Your task to perform on an android device: Open privacy settings Image 0: 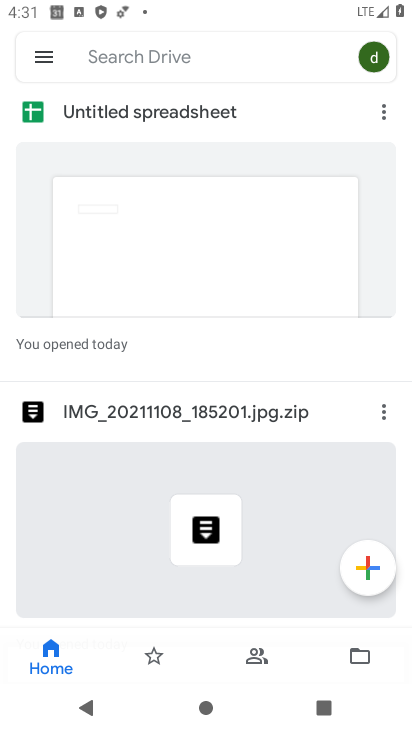
Step 0: press home button
Your task to perform on an android device: Open privacy settings Image 1: 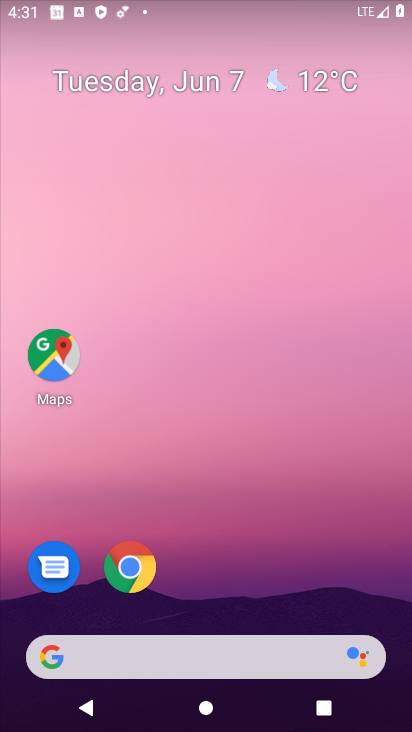
Step 1: drag from (328, 590) to (343, 73)
Your task to perform on an android device: Open privacy settings Image 2: 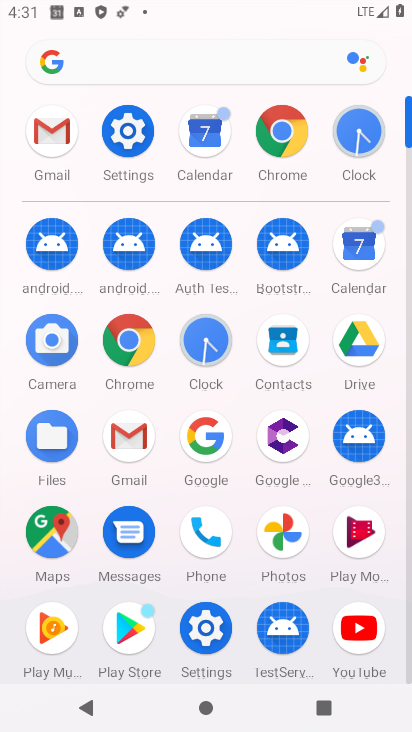
Step 2: click (128, 149)
Your task to perform on an android device: Open privacy settings Image 3: 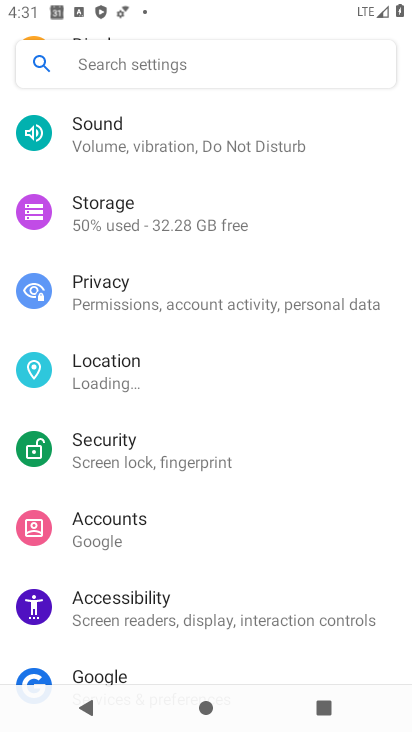
Step 3: click (165, 302)
Your task to perform on an android device: Open privacy settings Image 4: 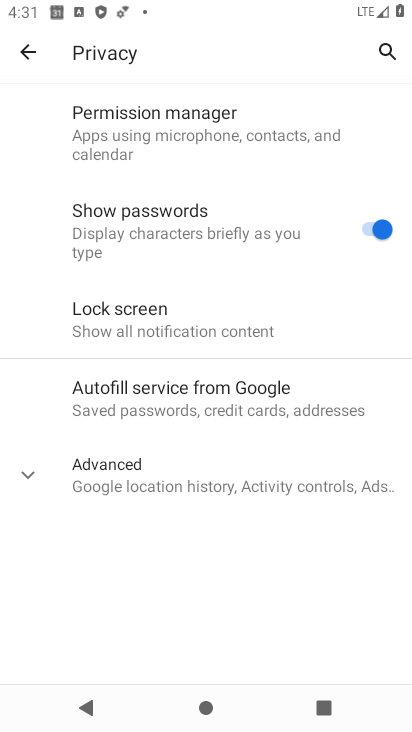
Step 4: task complete